Your task to perform on an android device: Check the news Image 0: 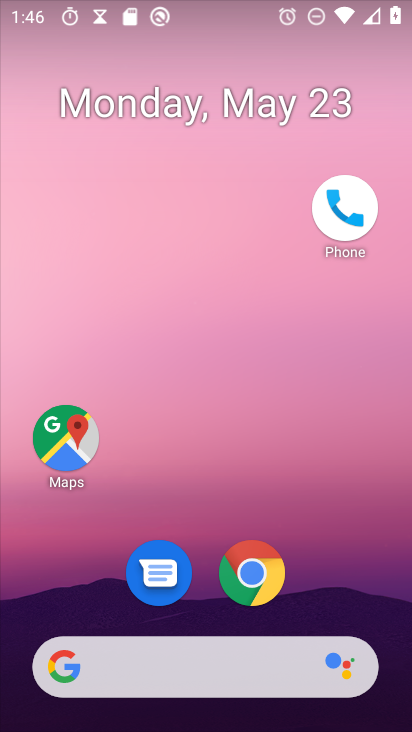
Step 0: click (75, 676)
Your task to perform on an android device: Check the news Image 1: 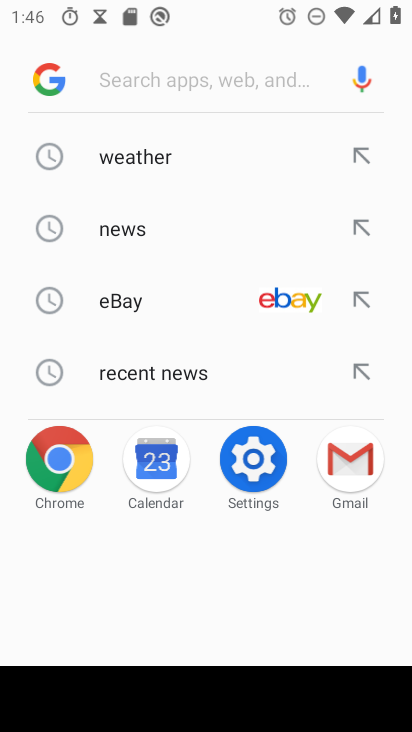
Step 1: click (145, 237)
Your task to perform on an android device: Check the news Image 2: 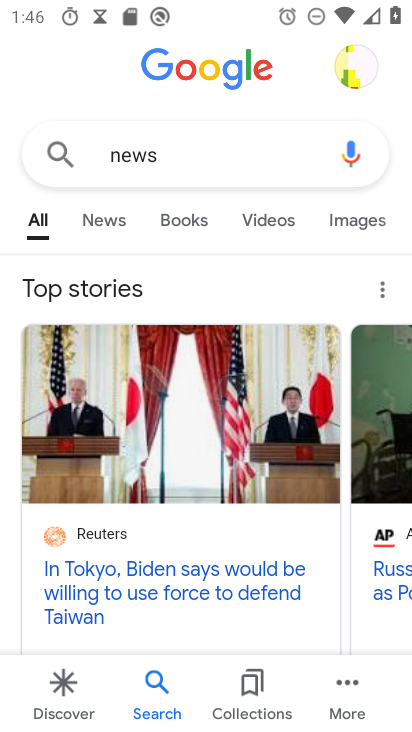
Step 2: click (98, 219)
Your task to perform on an android device: Check the news Image 3: 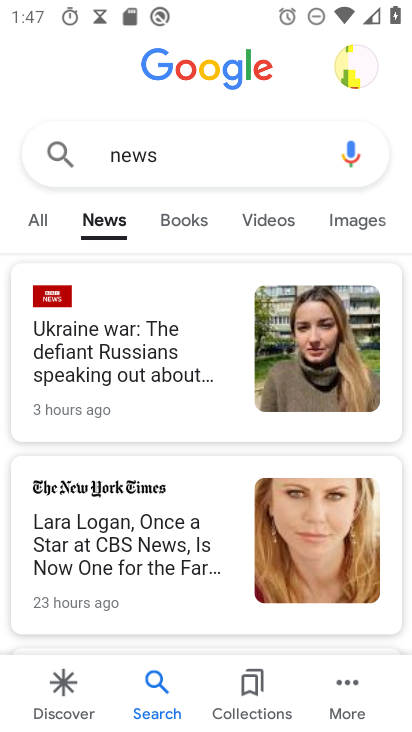
Step 3: task complete